Your task to perform on an android device: Go to settings Image 0: 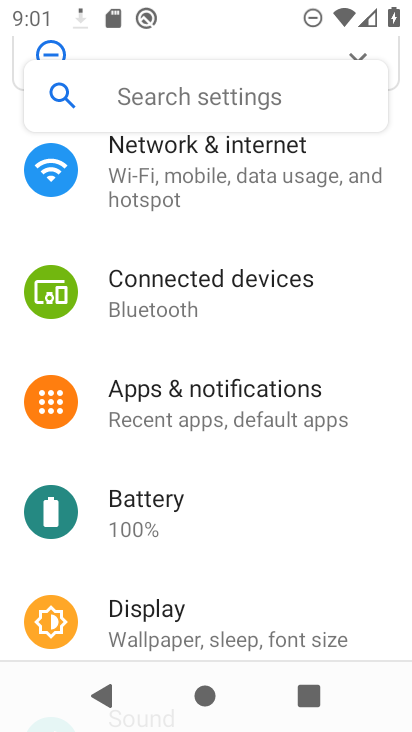
Step 0: task complete